Your task to perform on an android device: star an email in the gmail app Image 0: 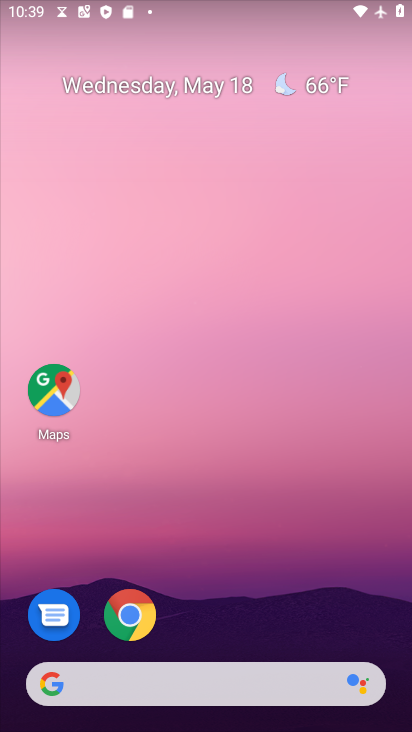
Step 0: drag from (236, 568) to (207, 46)
Your task to perform on an android device: star an email in the gmail app Image 1: 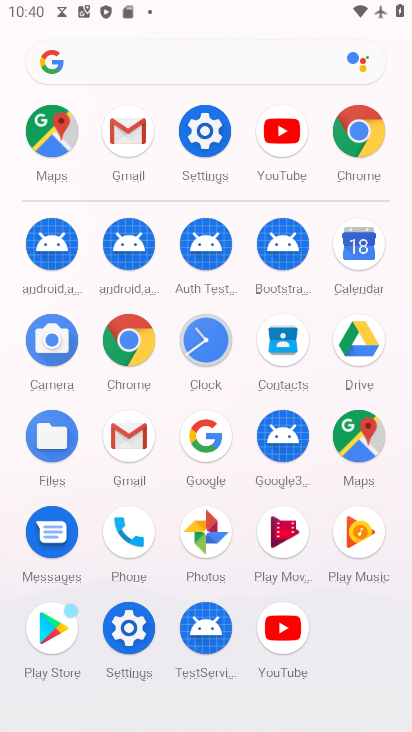
Step 1: drag from (8, 454) to (9, 196)
Your task to perform on an android device: star an email in the gmail app Image 2: 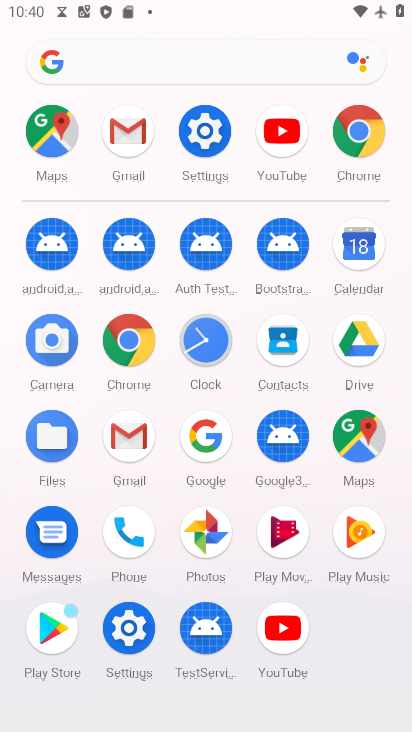
Step 2: click (128, 126)
Your task to perform on an android device: star an email in the gmail app Image 3: 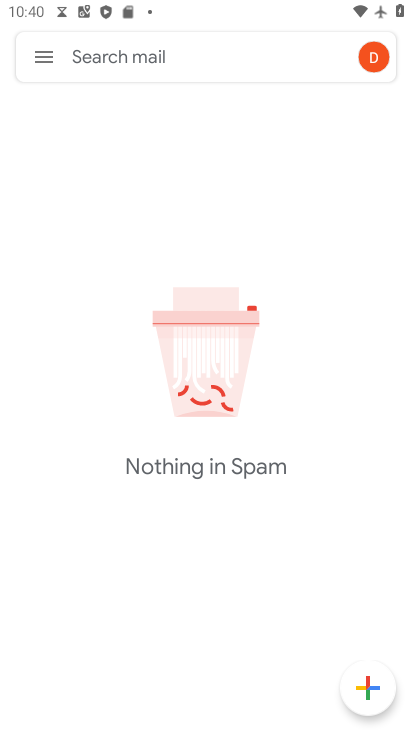
Step 3: click (58, 59)
Your task to perform on an android device: star an email in the gmail app Image 4: 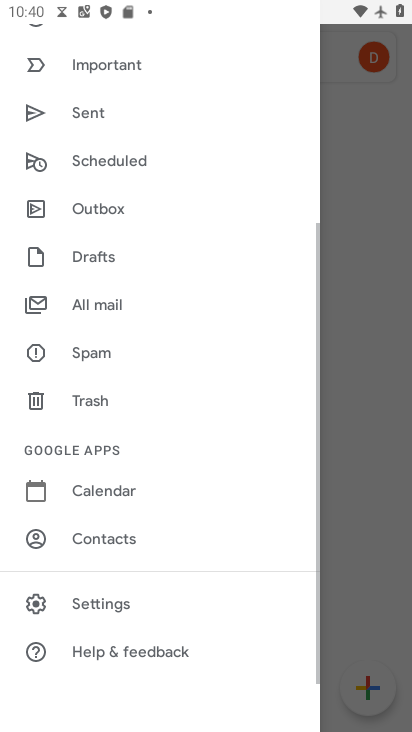
Step 4: drag from (115, 82) to (164, 464)
Your task to perform on an android device: star an email in the gmail app Image 5: 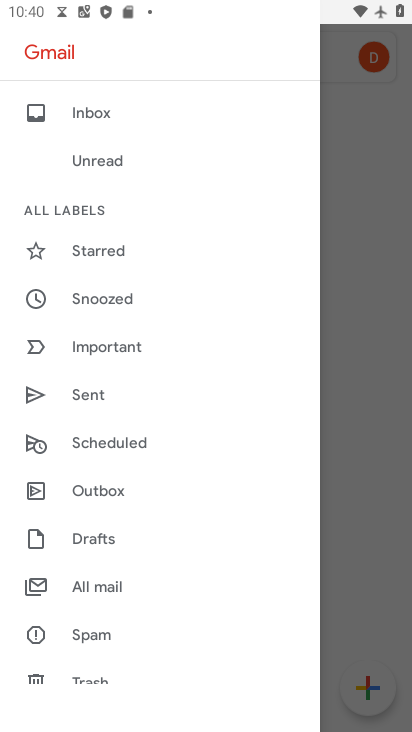
Step 5: click (115, 249)
Your task to perform on an android device: star an email in the gmail app Image 6: 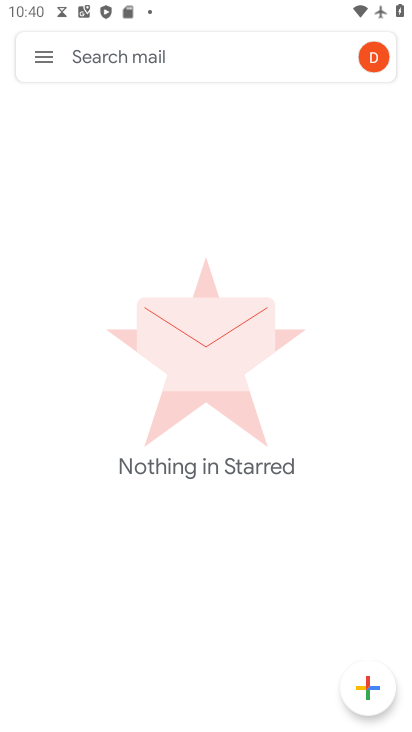
Step 6: task complete